Your task to perform on an android device: Open calendar and show me the fourth week of next month Image 0: 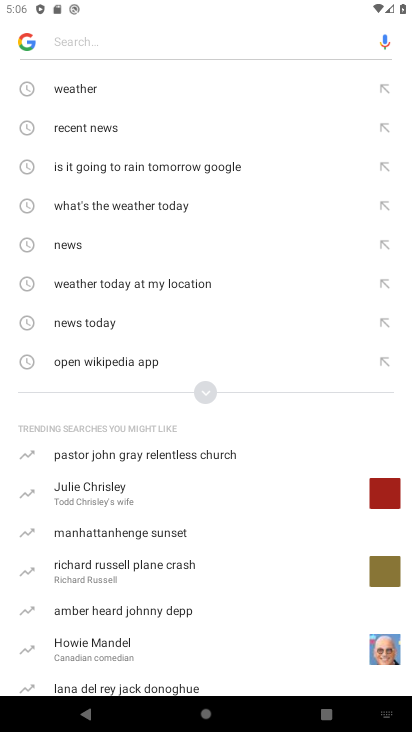
Step 0: press home button
Your task to perform on an android device: Open calendar and show me the fourth week of next month Image 1: 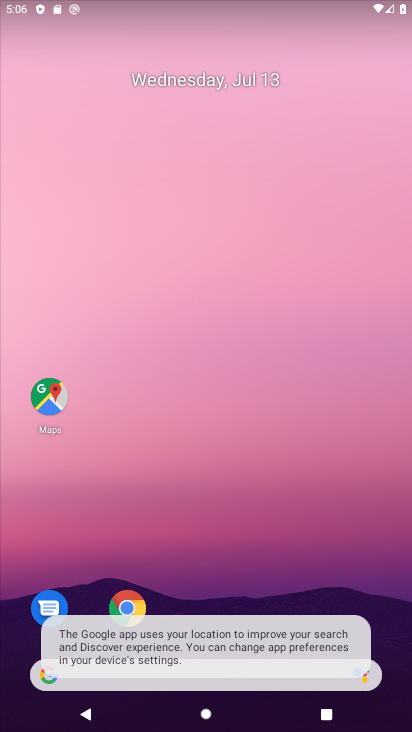
Step 1: drag from (323, 574) to (250, 69)
Your task to perform on an android device: Open calendar and show me the fourth week of next month Image 2: 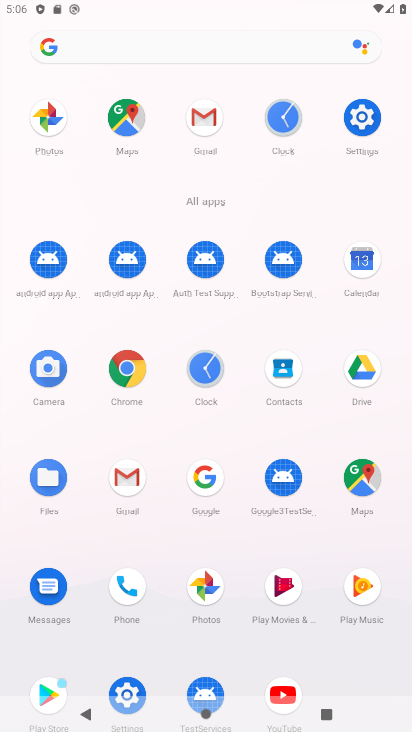
Step 2: click (346, 260)
Your task to perform on an android device: Open calendar and show me the fourth week of next month Image 3: 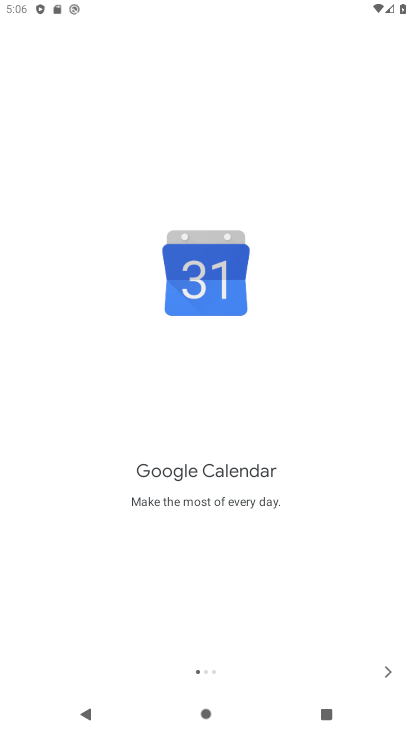
Step 3: click (383, 672)
Your task to perform on an android device: Open calendar and show me the fourth week of next month Image 4: 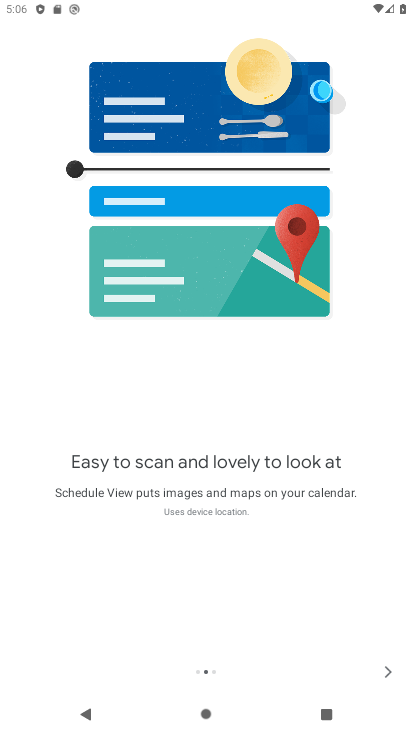
Step 4: click (390, 669)
Your task to perform on an android device: Open calendar and show me the fourth week of next month Image 5: 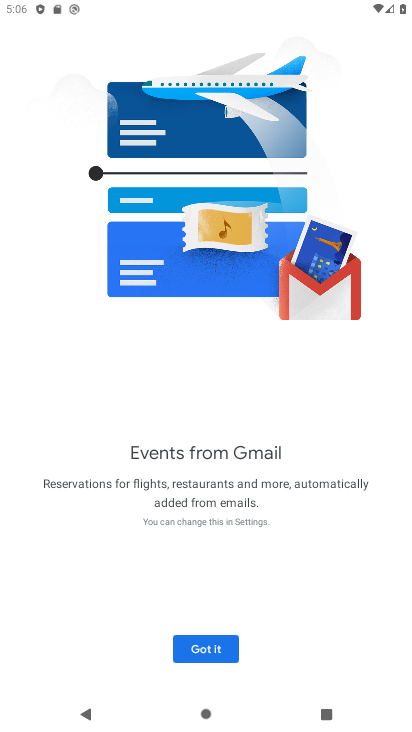
Step 5: click (208, 649)
Your task to perform on an android device: Open calendar and show me the fourth week of next month Image 6: 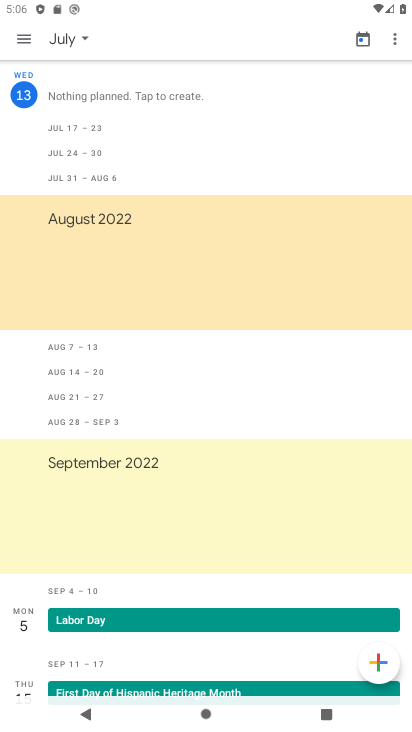
Step 6: click (56, 37)
Your task to perform on an android device: Open calendar and show me the fourth week of next month Image 7: 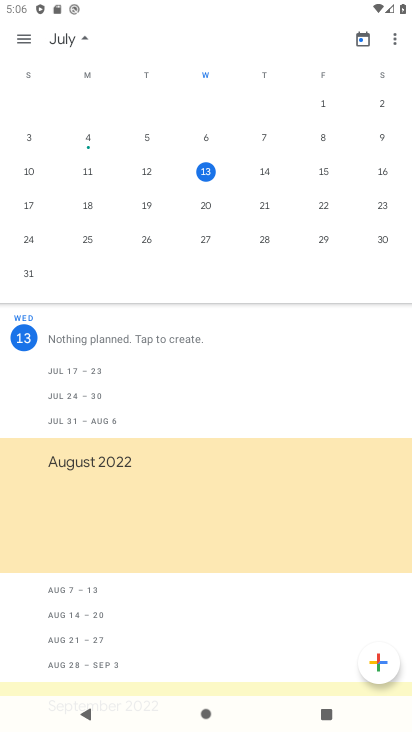
Step 7: drag from (269, 227) to (7, 85)
Your task to perform on an android device: Open calendar and show me the fourth week of next month Image 8: 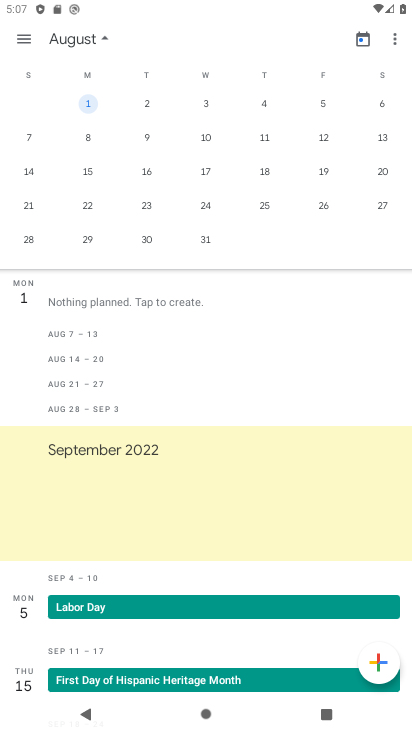
Step 8: click (25, 236)
Your task to perform on an android device: Open calendar and show me the fourth week of next month Image 9: 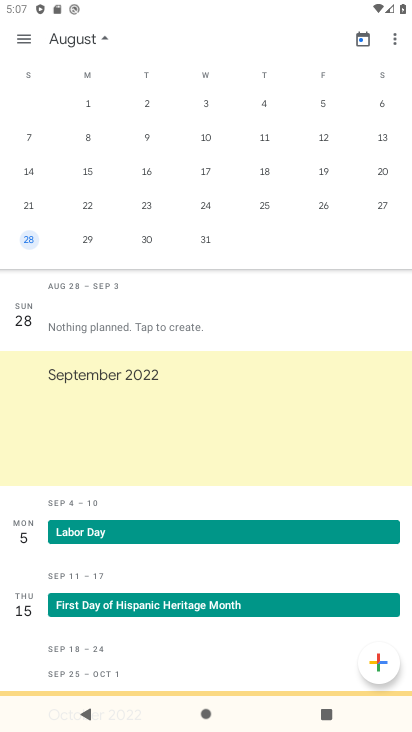
Step 9: task complete